Your task to perform on an android device: turn off priority inbox in the gmail app Image 0: 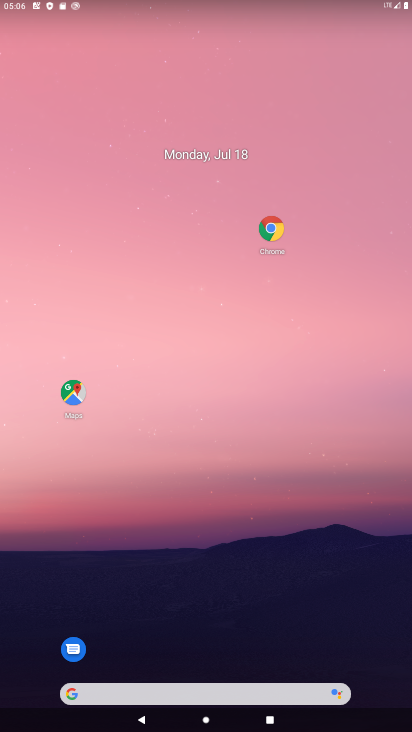
Step 0: drag from (197, 651) to (229, 103)
Your task to perform on an android device: turn off priority inbox in the gmail app Image 1: 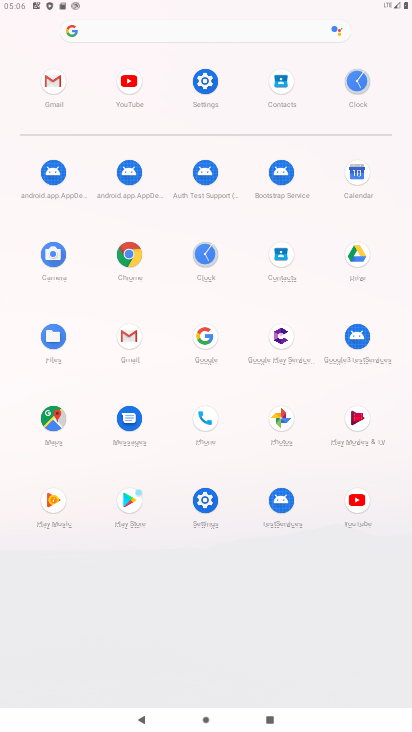
Step 1: click (53, 73)
Your task to perform on an android device: turn off priority inbox in the gmail app Image 2: 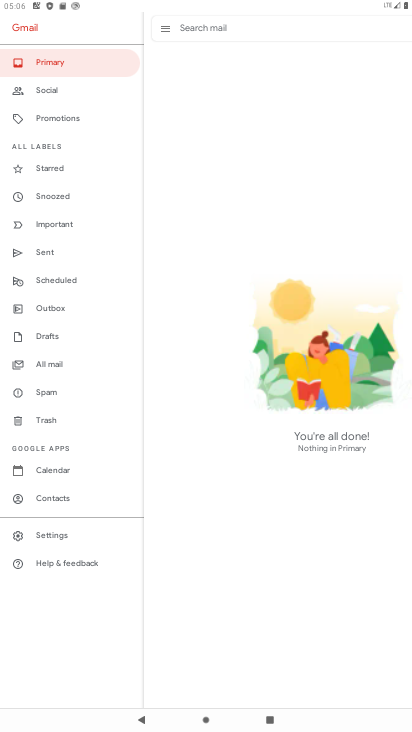
Step 2: click (61, 541)
Your task to perform on an android device: turn off priority inbox in the gmail app Image 3: 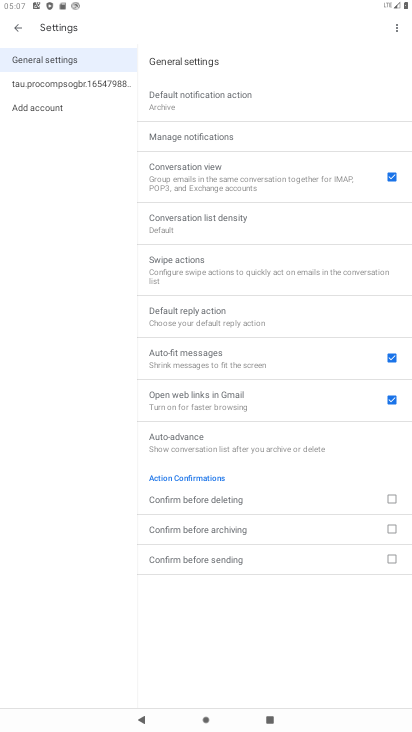
Step 3: click (98, 89)
Your task to perform on an android device: turn off priority inbox in the gmail app Image 4: 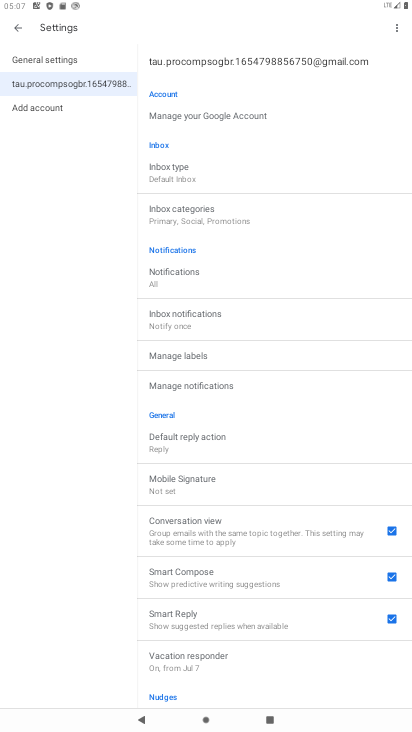
Step 4: click (201, 172)
Your task to perform on an android device: turn off priority inbox in the gmail app Image 5: 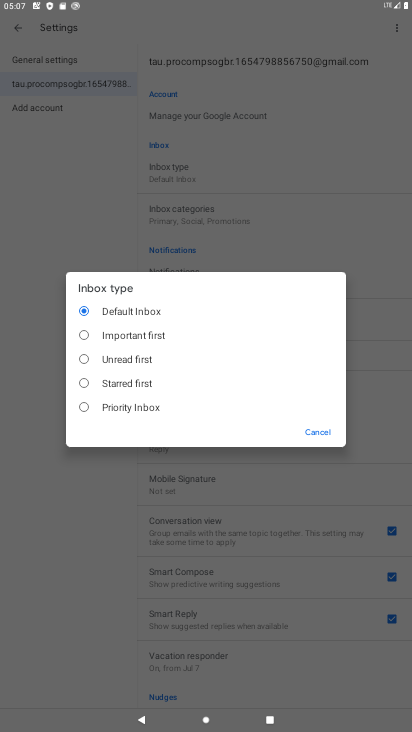
Step 5: task complete